Your task to perform on an android device: add a contact in the contacts app Image 0: 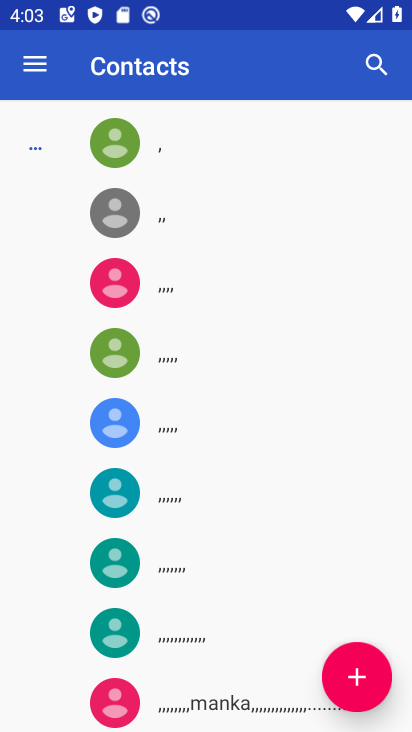
Step 0: press home button
Your task to perform on an android device: add a contact in the contacts app Image 1: 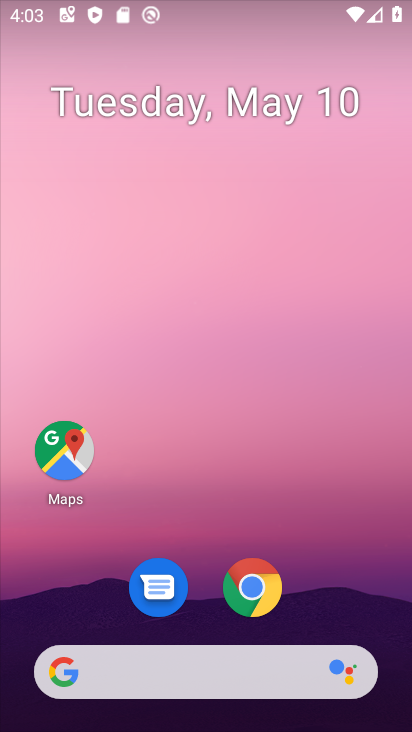
Step 1: drag from (269, 698) to (281, 141)
Your task to perform on an android device: add a contact in the contacts app Image 2: 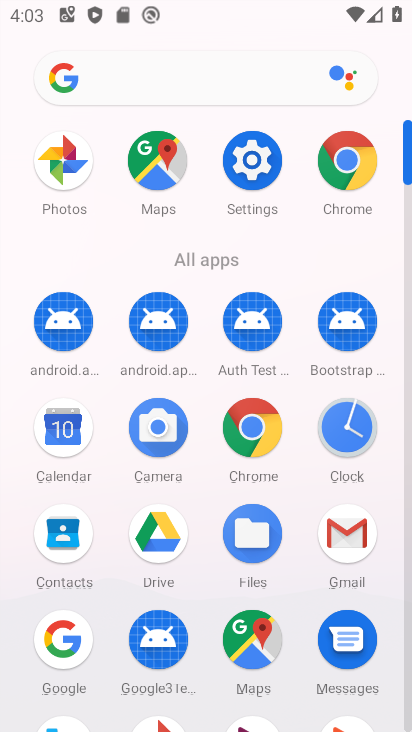
Step 2: drag from (215, 571) to (274, 404)
Your task to perform on an android device: add a contact in the contacts app Image 3: 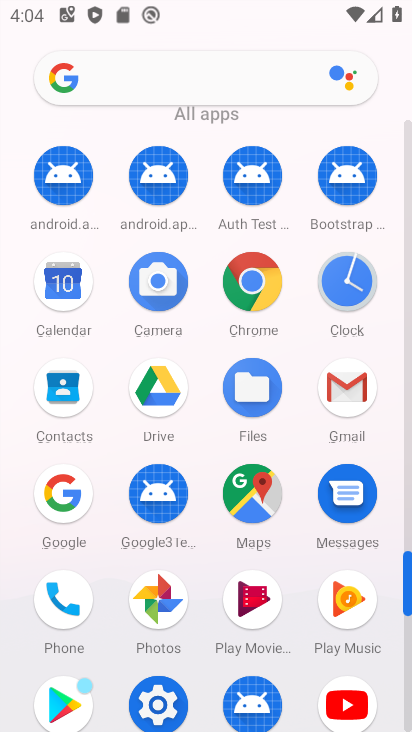
Step 3: click (71, 612)
Your task to perform on an android device: add a contact in the contacts app Image 4: 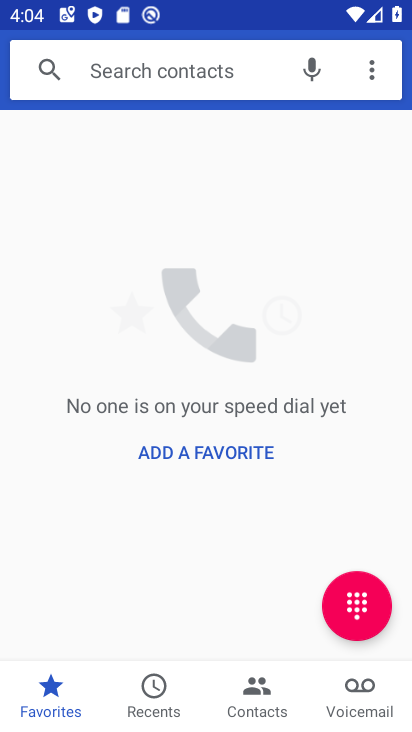
Step 4: click (262, 692)
Your task to perform on an android device: add a contact in the contacts app Image 5: 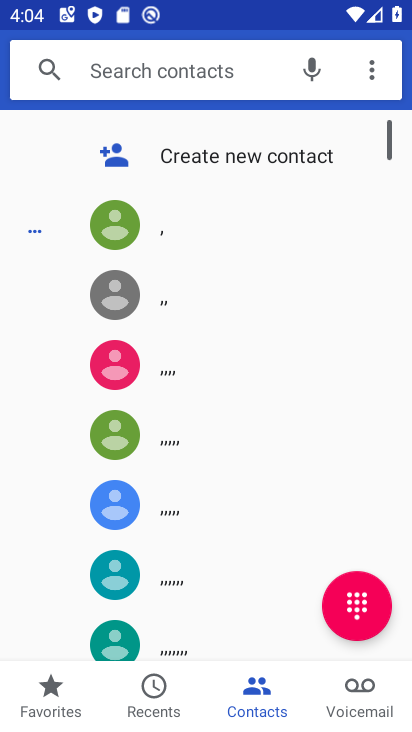
Step 5: click (231, 155)
Your task to perform on an android device: add a contact in the contacts app Image 6: 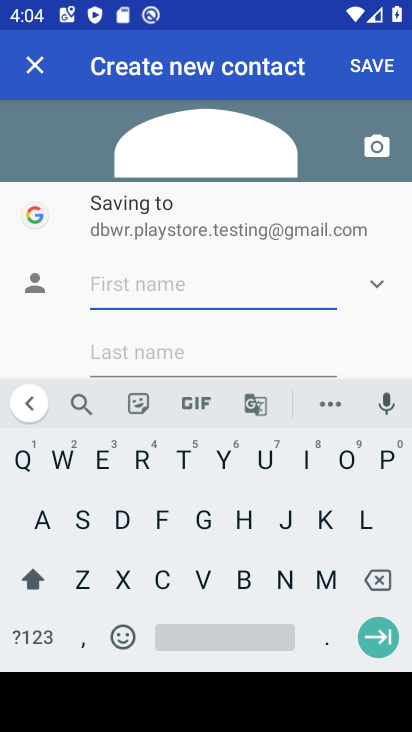
Step 6: click (142, 468)
Your task to perform on an android device: add a contact in the contacts app Image 7: 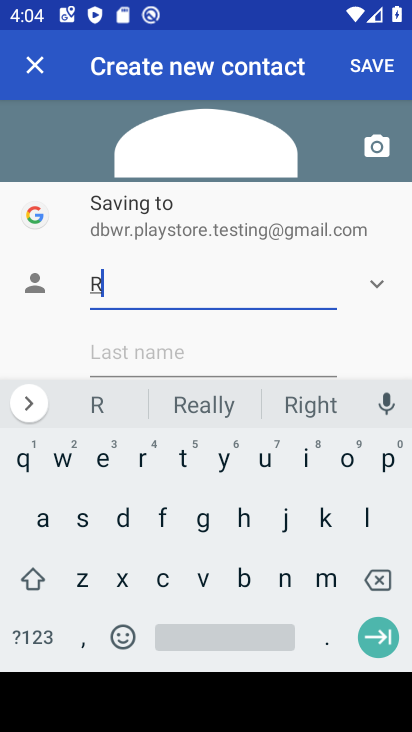
Step 7: click (306, 460)
Your task to perform on an android device: add a contact in the contacts app Image 8: 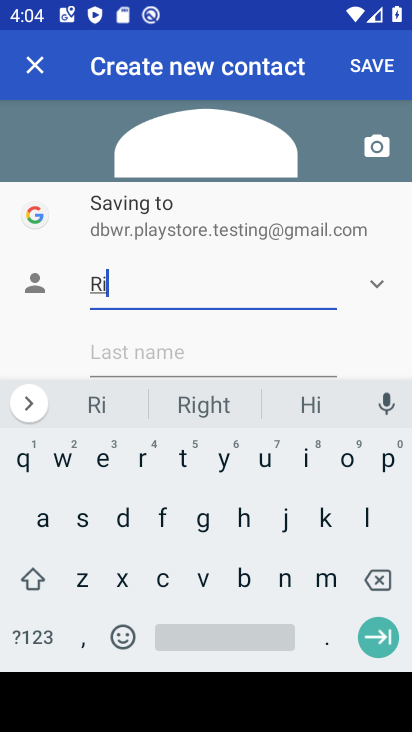
Step 8: click (223, 456)
Your task to perform on an android device: add a contact in the contacts app Image 9: 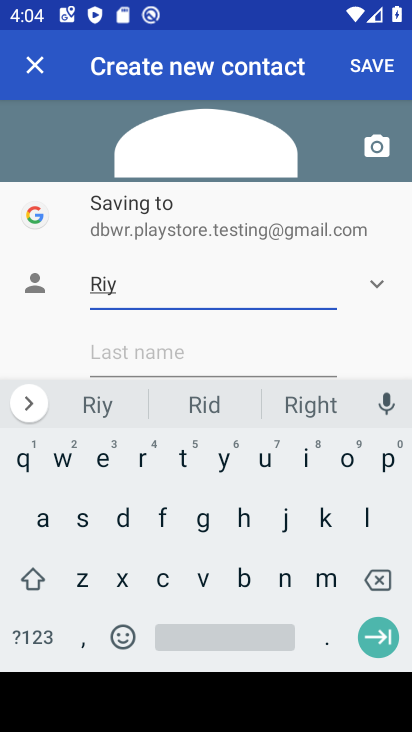
Step 9: click (37, 524)
Your task to perform on an android device: add a contact in the contacts app Image 10: 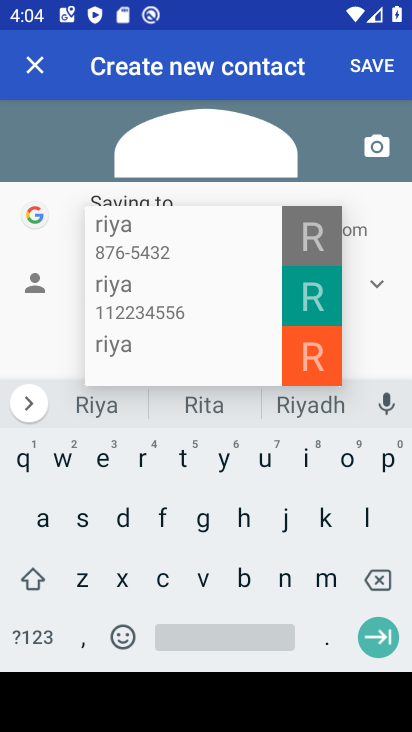
Step 10: click (215, 647)
Your task to perform on an android device: add a contact in the contacts app Image 11: 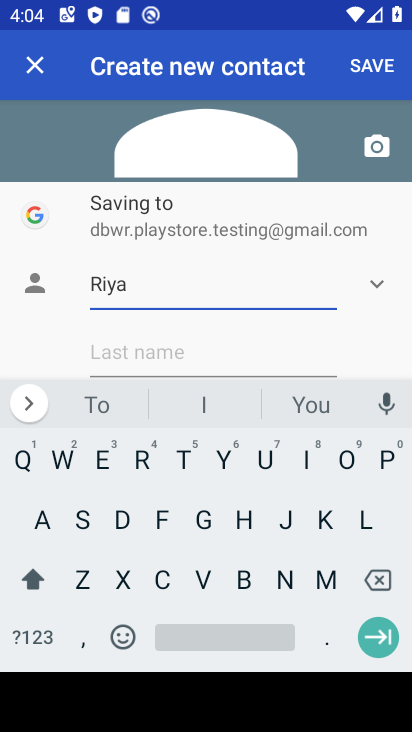
Step 11: click (82, 507)
Your task to perform on an android device: add a contact in the contacts app Image 12: 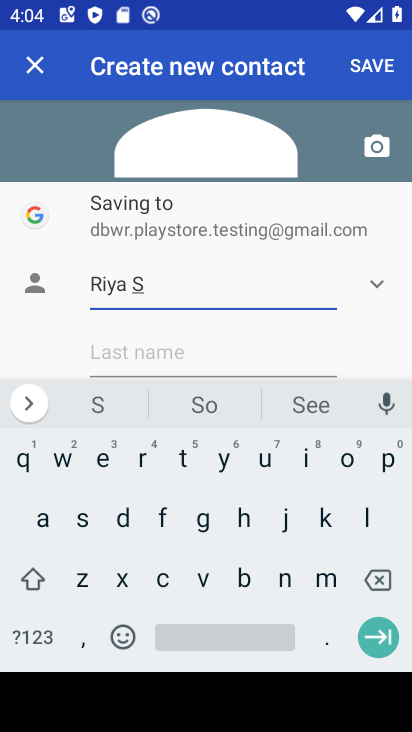
Step 12: click (250, 520)
Your task to perform on an android device: add a contact in the contacts app Image 13: 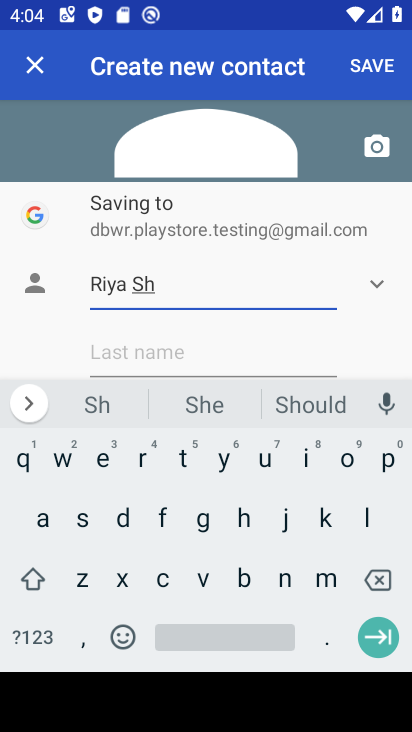
Step 13: click (42, 526)
Your task to perform on an android device: add a contact in the contacts app Image 14: 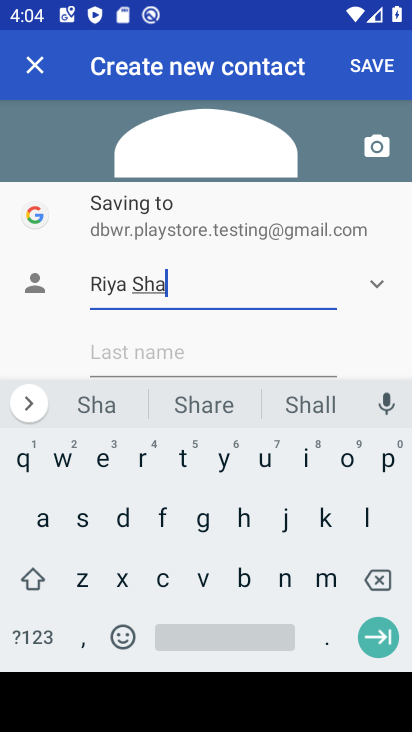
Step 14: click (141, 464)
Your task to perform on an android device: add a contact in the contacts app Image 15: 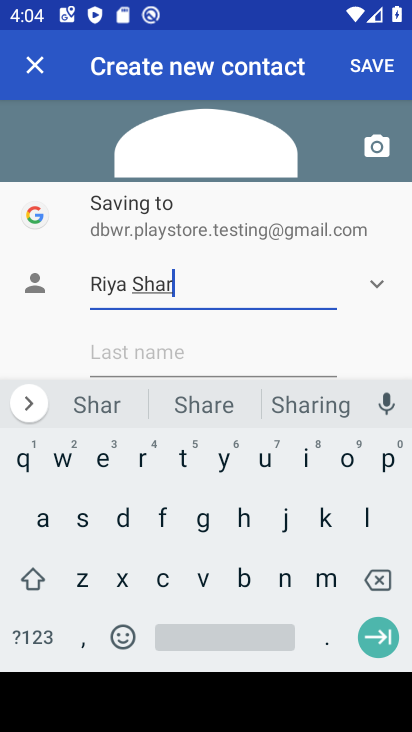
Step 15: click (322, 569)
Your task to perform on an android device: add a contact in the contacts app Image 16: 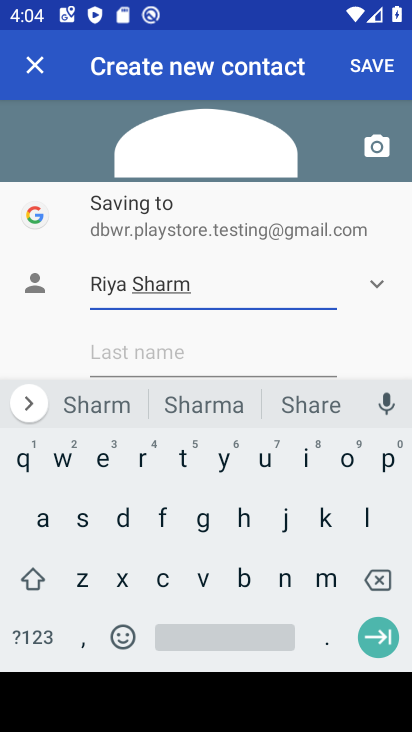
Step 16: click (37, 517)
Your task to perform on an android device: add a contact in the contacts app Image 17: 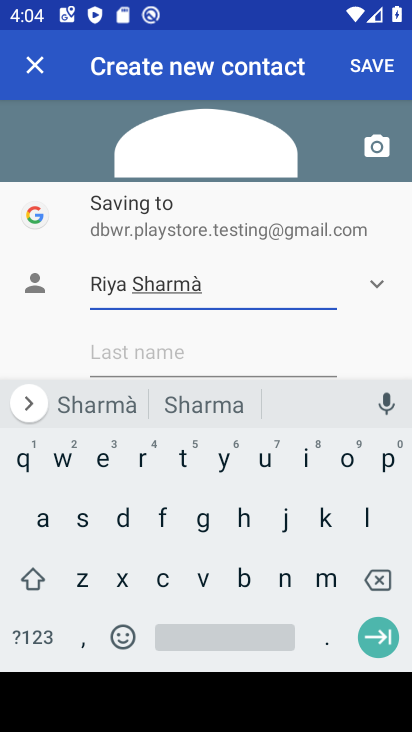
Step 17: drag from (219, 349) to (296, 207)
Your task to perform on an android device: add a contact in the contacts app Image 18: 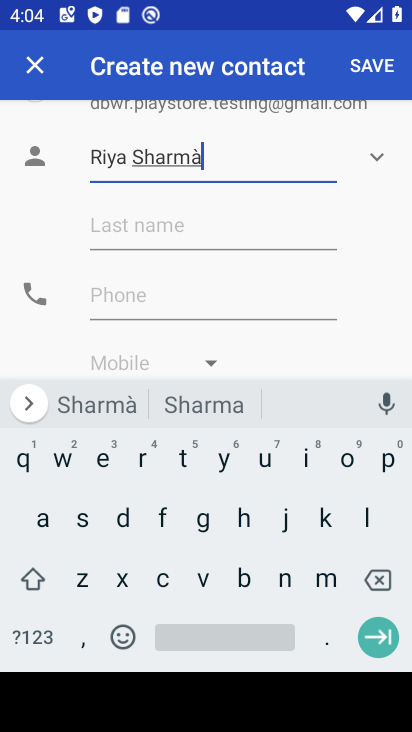
Step 18: click (162, 295)
Your task to perform on an android device: add a contact in the contacts app Image 19: 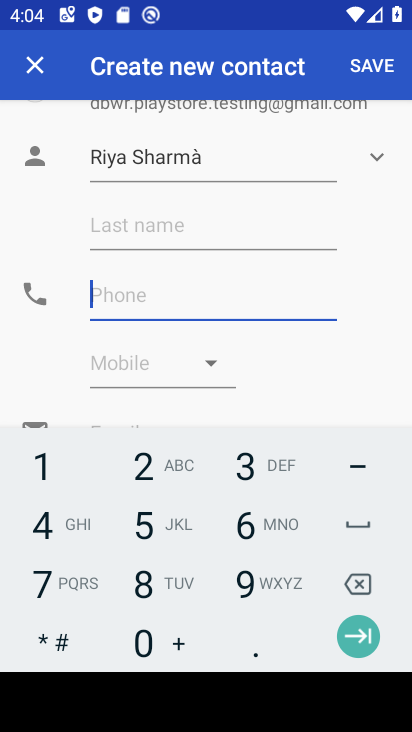
Step 19: click (259, 580)
Your task to perform on an android device: add a contact in the contacts app Image 20: 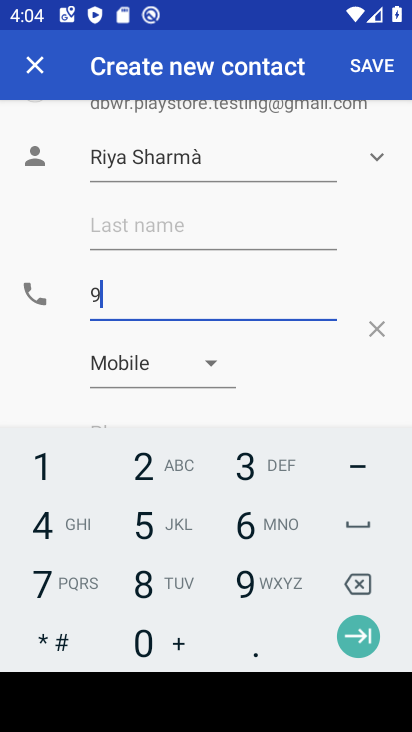
Step 20: click (152, 588)
Your task to perform on an android device: add a contact in the contacts app Image 21: 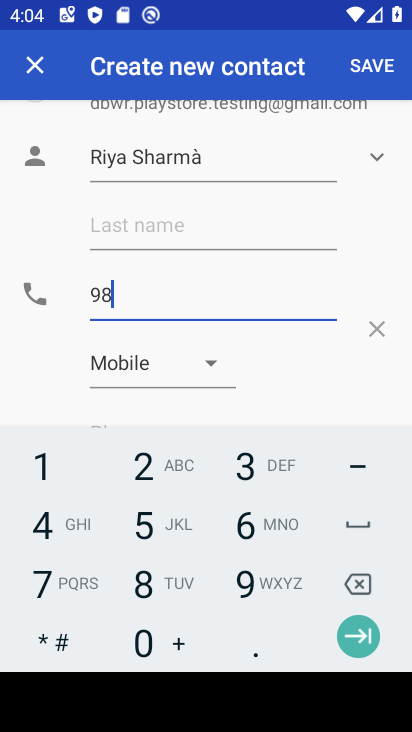
Step 21: click (243, 473)
Your task to perform on an android device: add a contact in the contacts app Image 22: 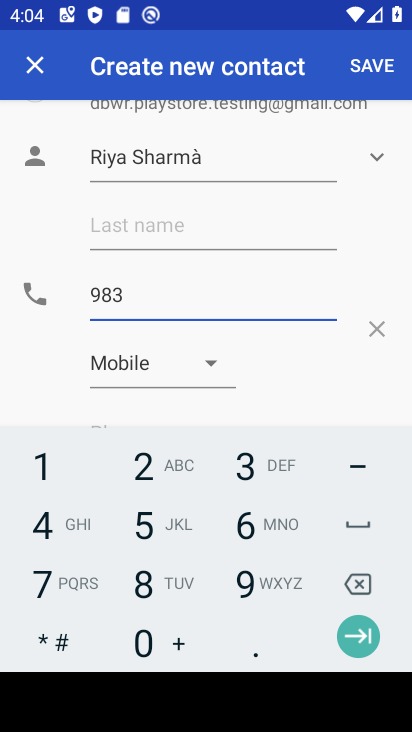
Step 22: click (254, 583)
Your task to perform on an android device: add a contact in the contacts app Image 23: 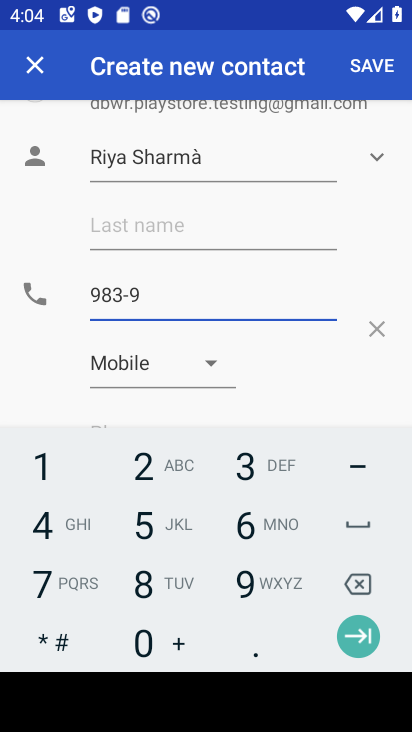
Step 23: click (169, 519)
Your task to perform on an android device: add a contact in the contacts app Image 24: 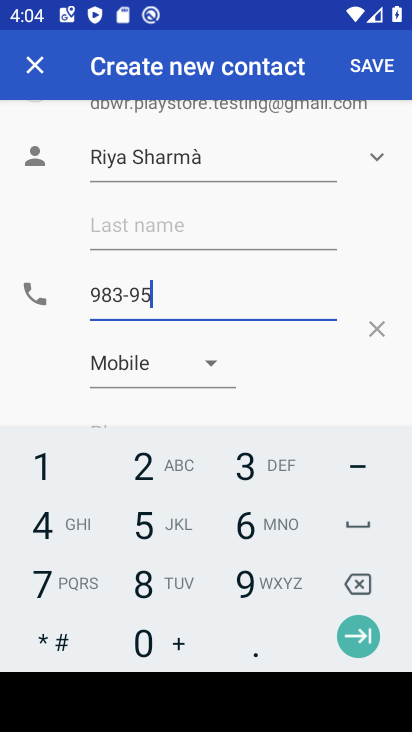
Step 24: click (241, 530)
Your task to perform on an android device: add a contact in the contacts app Image 25: 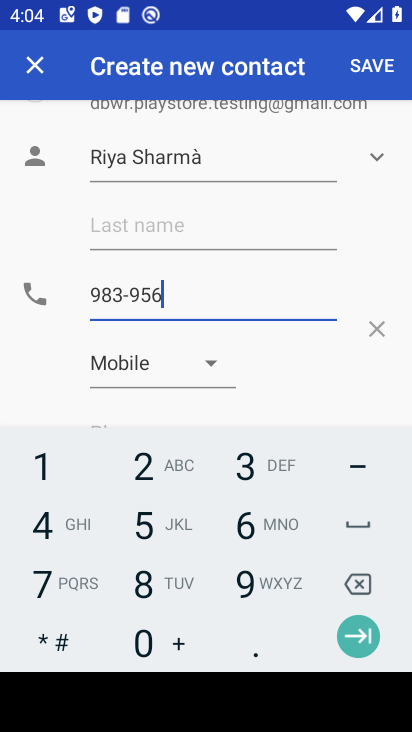
Step 25: click (138, 464)
Your task to perform on an android device: add a contact in the contacts app Image 26: 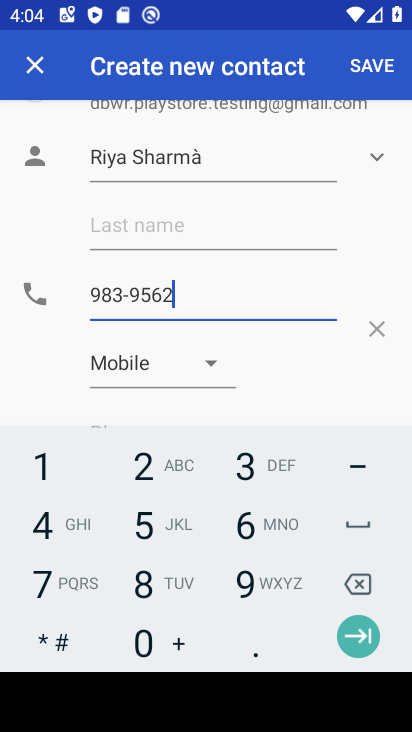
Step 26: click (253, 464)
Your task to perform on an android device: add a contact in the contacts app Image 27: 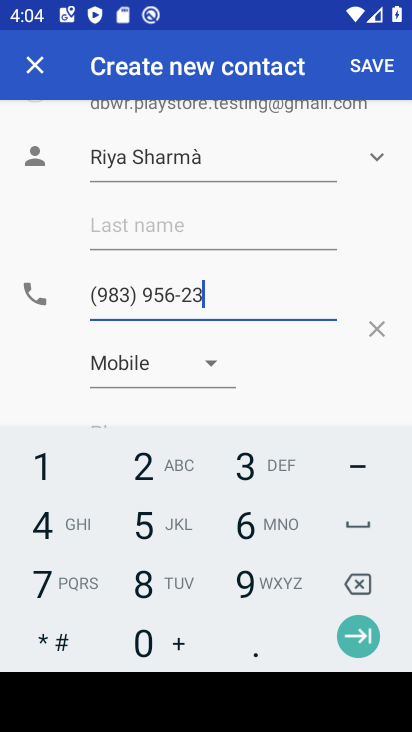
Step 27: click (56, 487)
Your task to perform on an android device: add a contact in the contacts app Image 28: 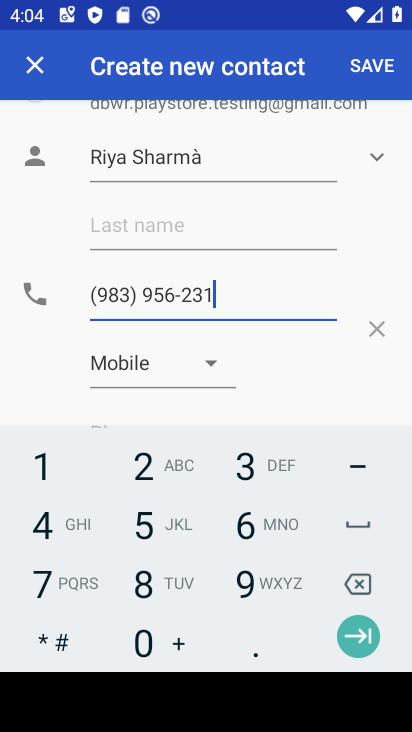
Step 28: click (49, 551)
Your task to perform on an android device: add a contact in the contacts app Image 29: 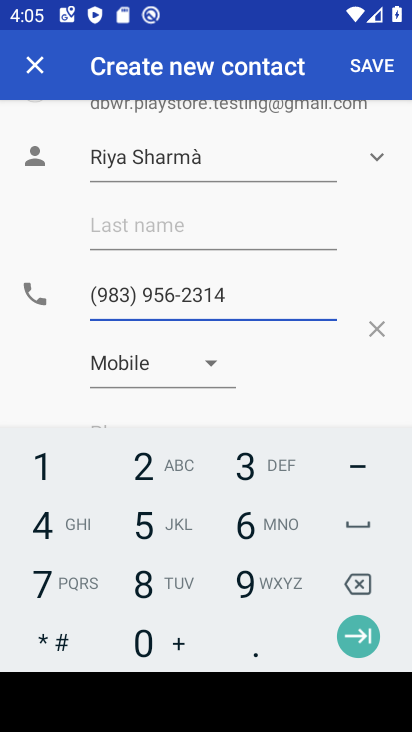
Step 29: click (381, 68)
Your task to perform on an android device: add a contact in the contacts app Image 30: 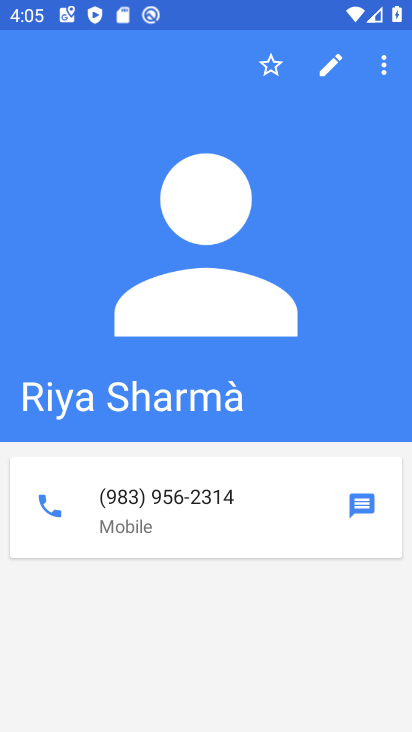
Step 30: task complete